Your task to perform on an android device: What is the speed of a rocket? Image 0: 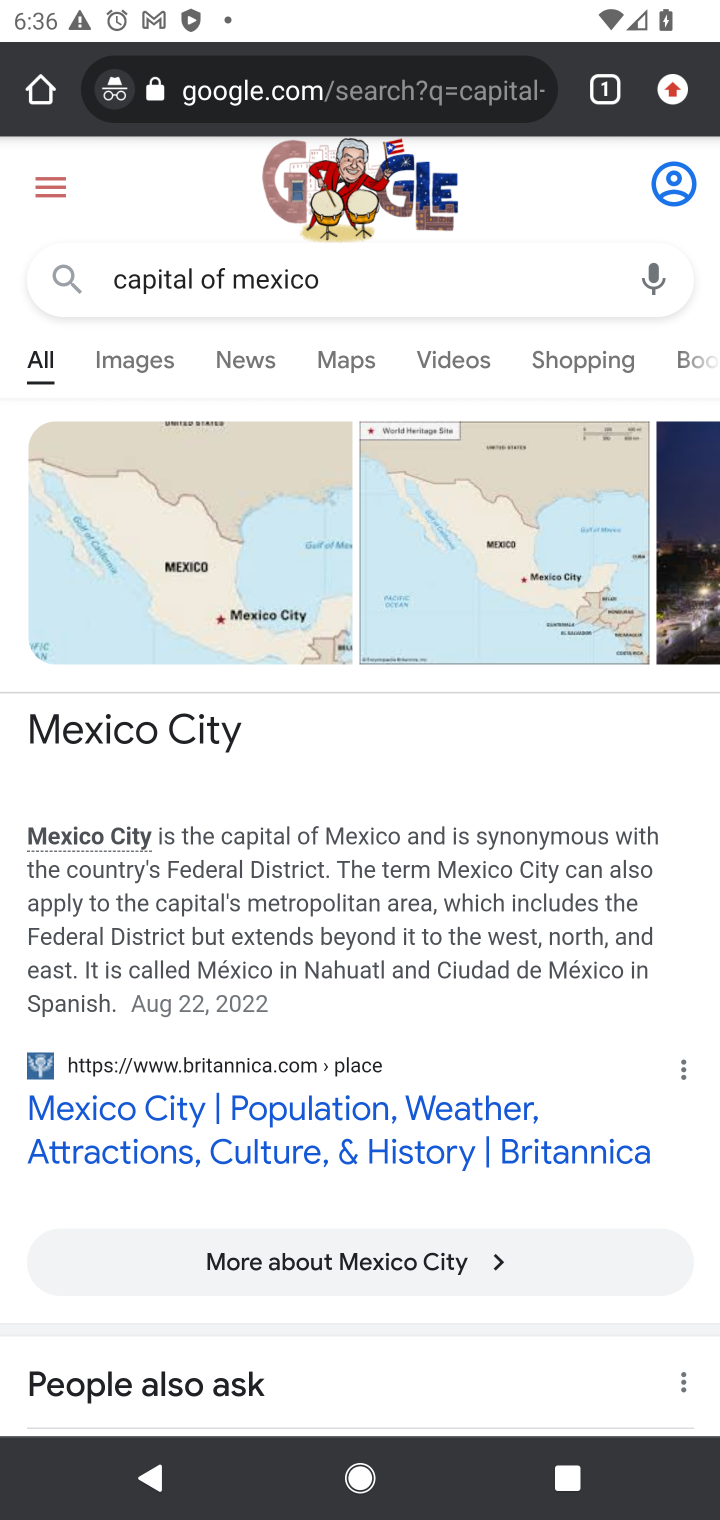
Step 0: click (408, 273)
Your task to perform on an android device: What is the speed of a rocket? Image 1: 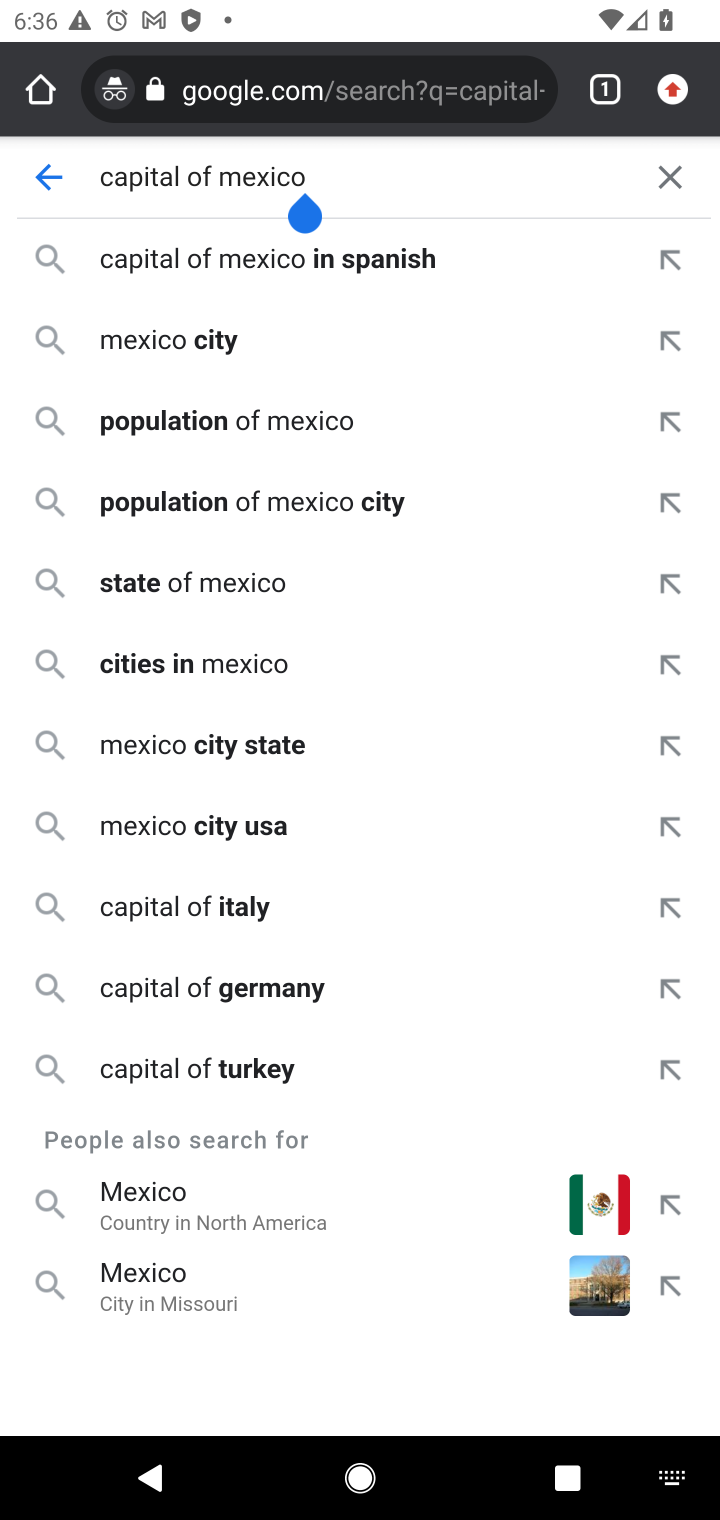
Step 1: click (660, 181)
Your task to perform on an android device: What is the speed of a rocket? Image 2: 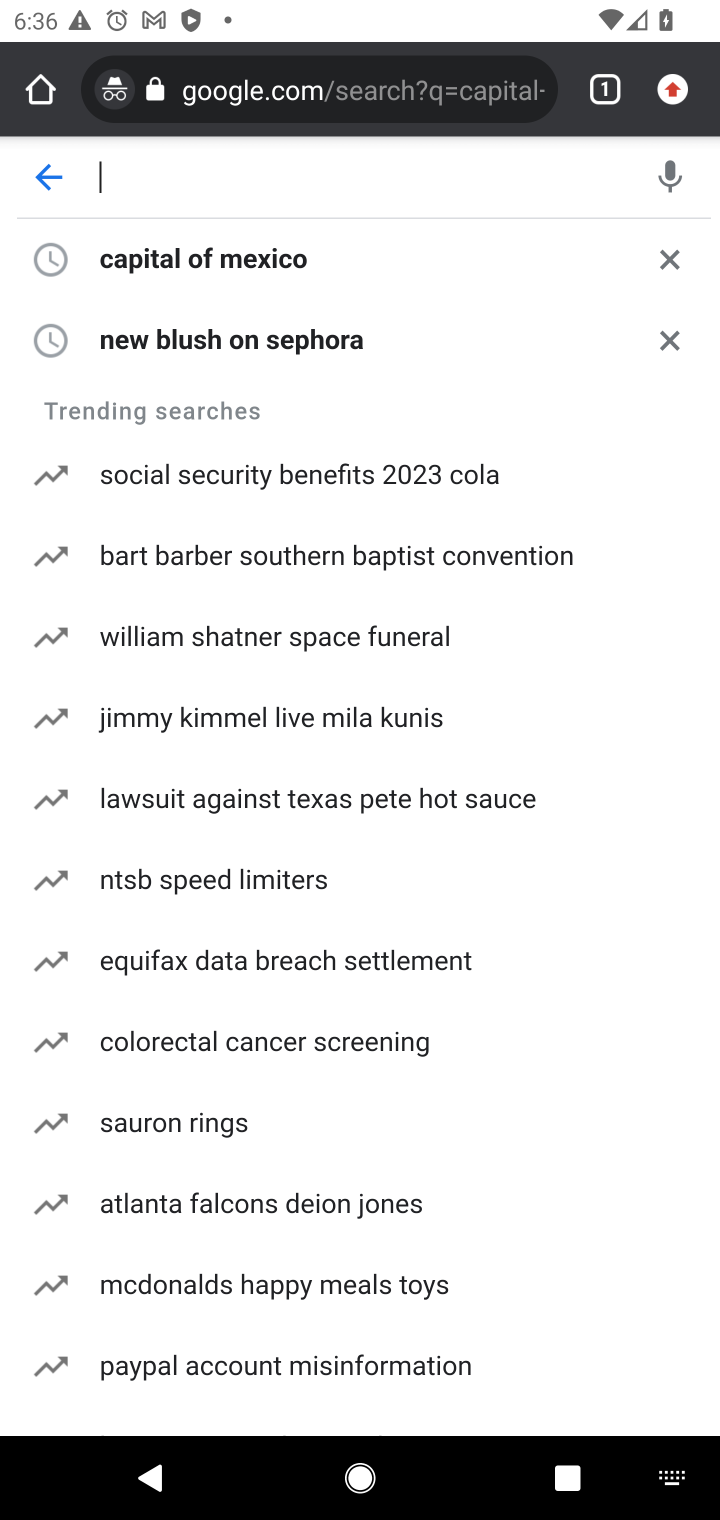
Step 2: type "What is the speed of a rocket?"
Your task to perform on an android device: What is the speed of a rocket? Image 3: 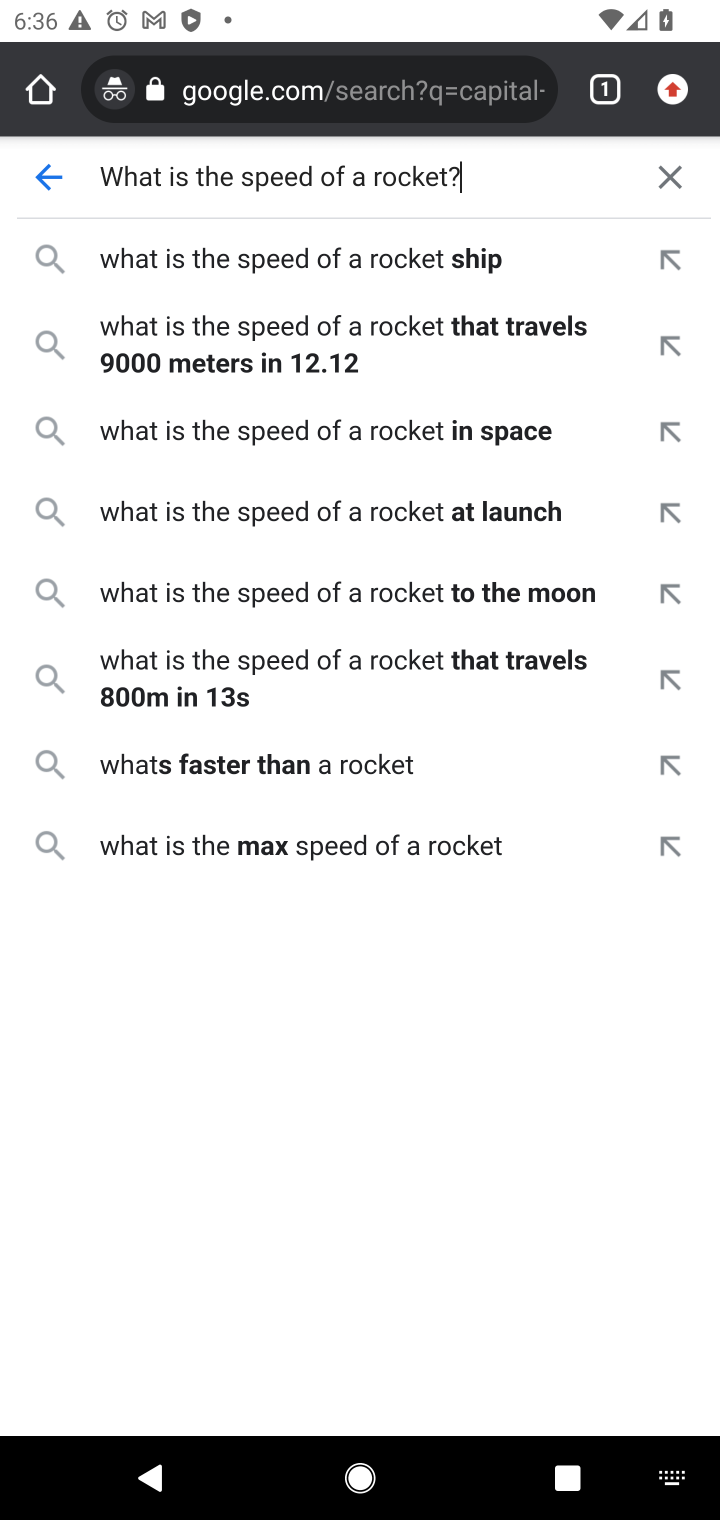
Step 3: press enter
Your task to perform on an android device: What is the speed of a rocket? Image 4: 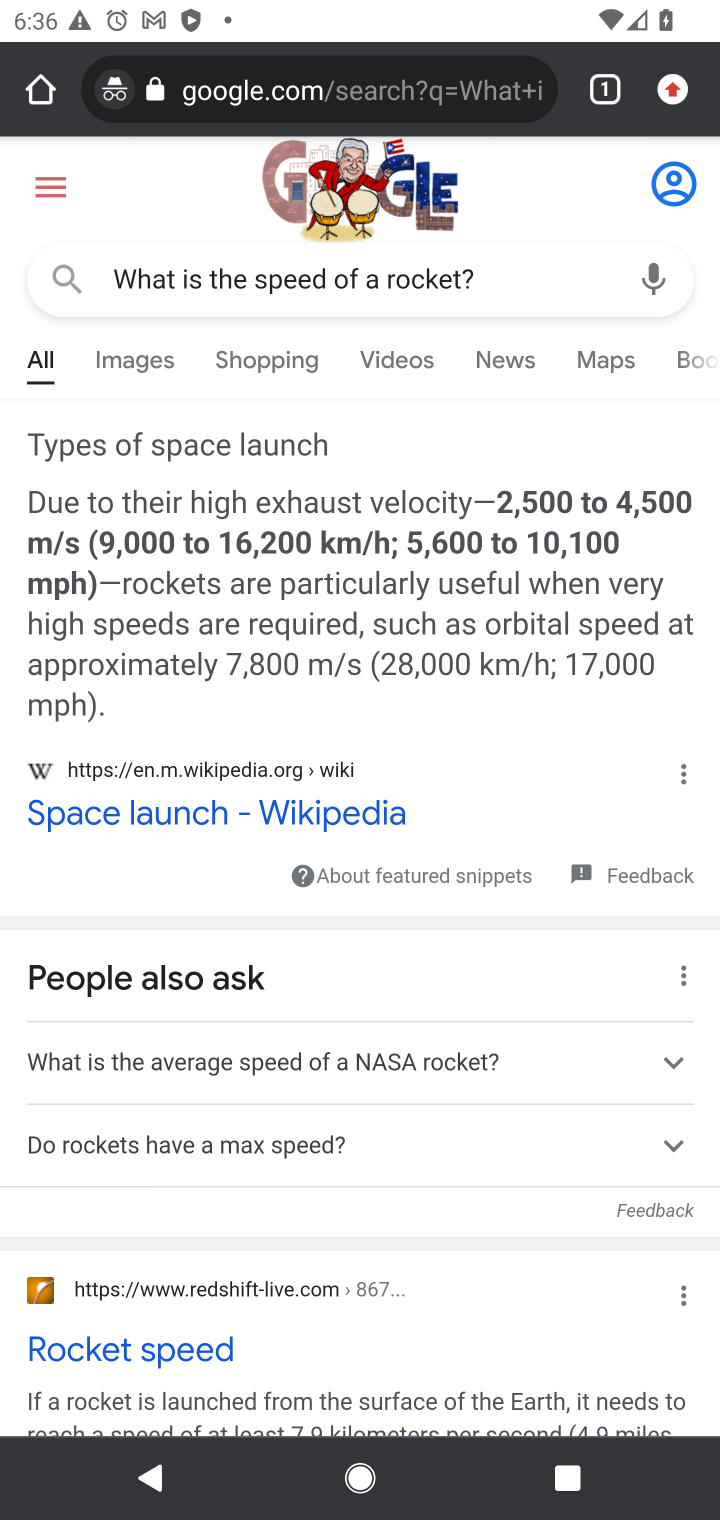
Step 4: task complete